Your task to perform on an android device: Go to Yahoo.com Image 0: 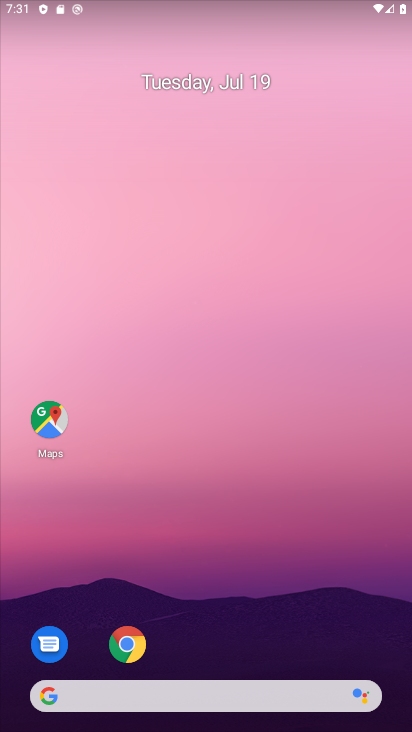
Step 0: drag from (203, 602) to (89, 128)
Your task to perform on an android device: Go to Yahoo.com Image 1: 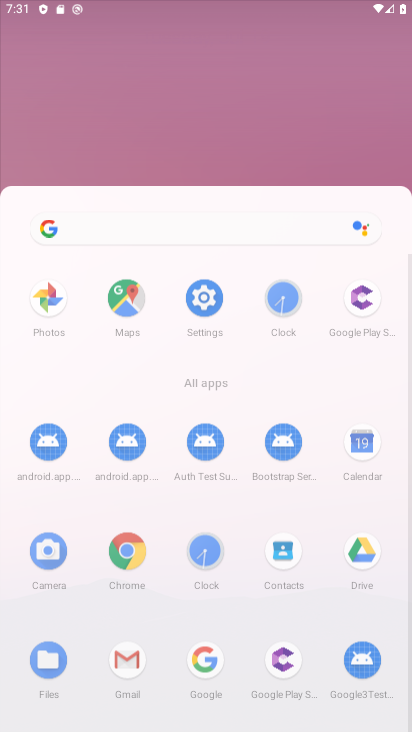
Step 1: drag from (125, 555) to (165, 127)
Your task to perform on an android device: Go to Yahoo.com Image 2: 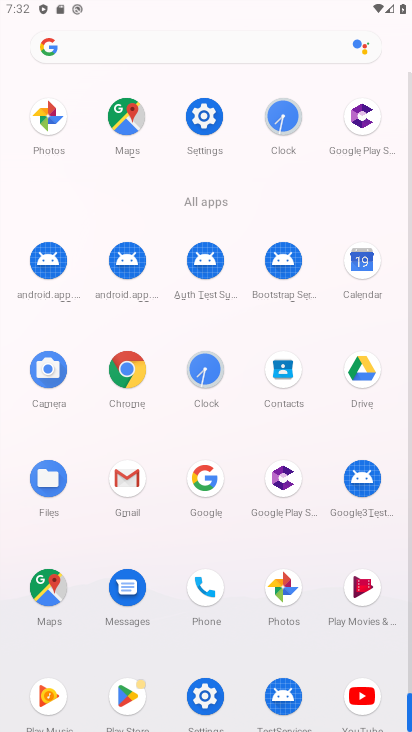
Step 2: click (130, 378)
Your task to perform on an android device: Go to Yahoo.com Image 3: 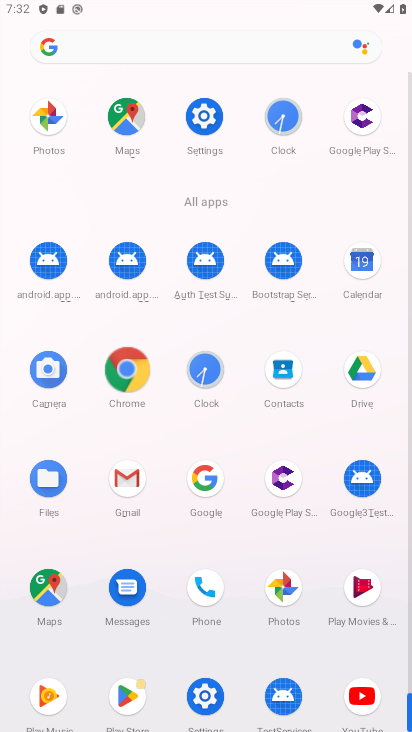
Step 3: click (129, 380)
Your task to perform on an android device: Go to Yahoo.com Image 4: 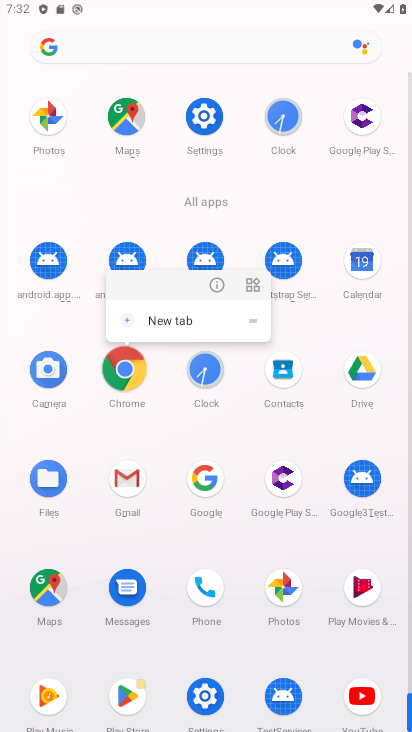
Step 4: click (125, 382)
Your task to perform on an android device: Go to Yahoo.com Image 5: 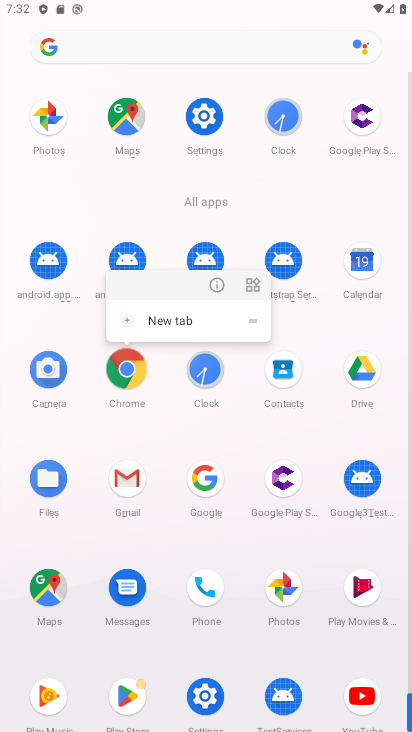
Step 5: click (124, 383)
Your task to perform on an android device: Go to Yahoo.com Image 6: 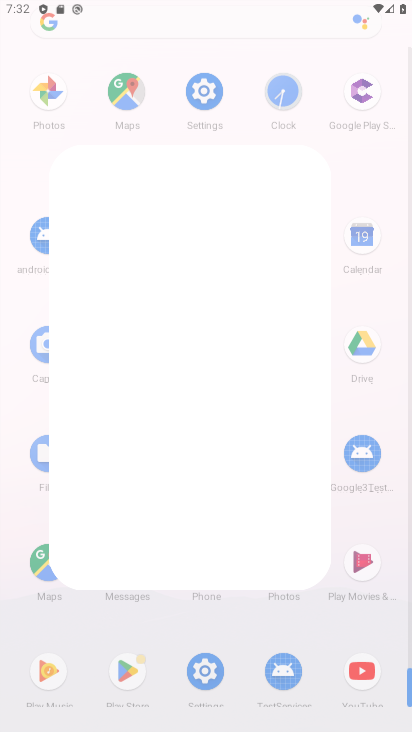
Step 6: click (127, 364)
Your task to perform on an android device: Go to Yahoo.com Image 7: 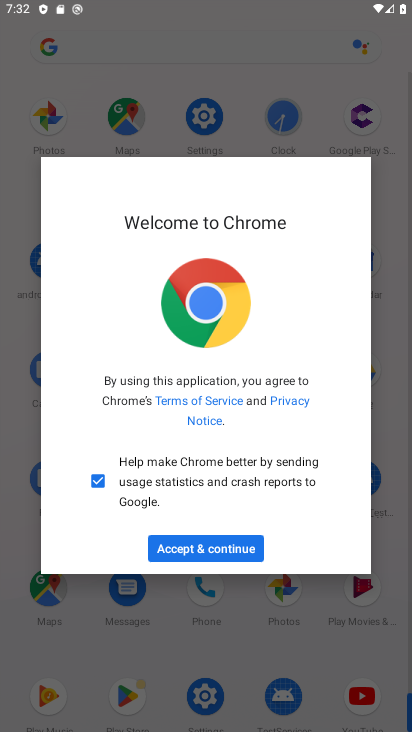
Step 7: click (232, 529)
Your task to perform on an android device: Go to Yahoo.com Image 8: 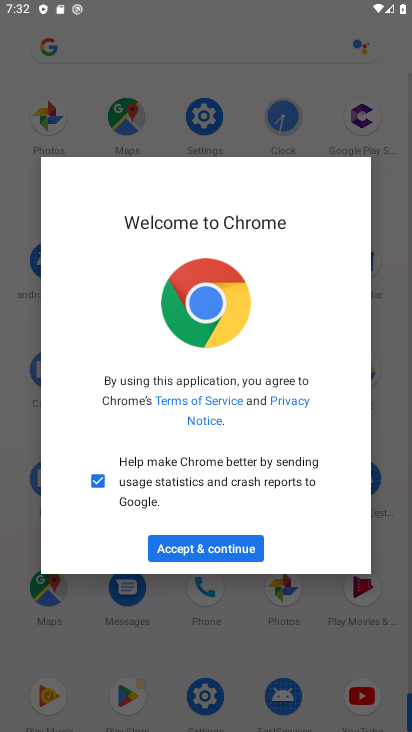
Step 8: click (235, 553)
Your task to perform on an android device: Go to Yahoo.com Image 9: 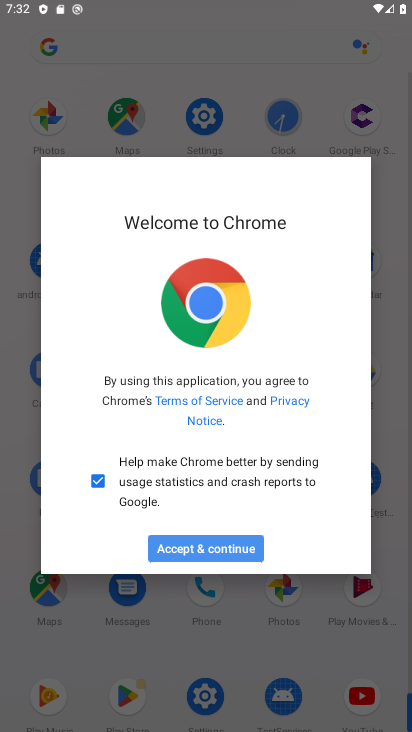
Step 9: click (244, 549)
Your task to perform on an android device: Go to Yahoo.com Image 10: 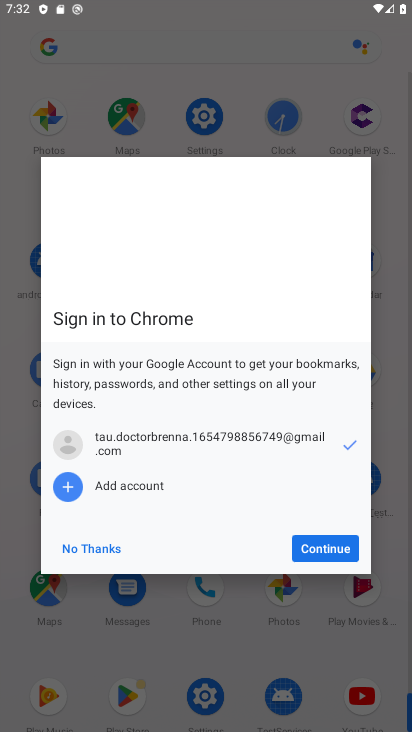
Step 10: click (244, 549)
Your task to perform on an android device: Go to Yahoo.com Image 11: 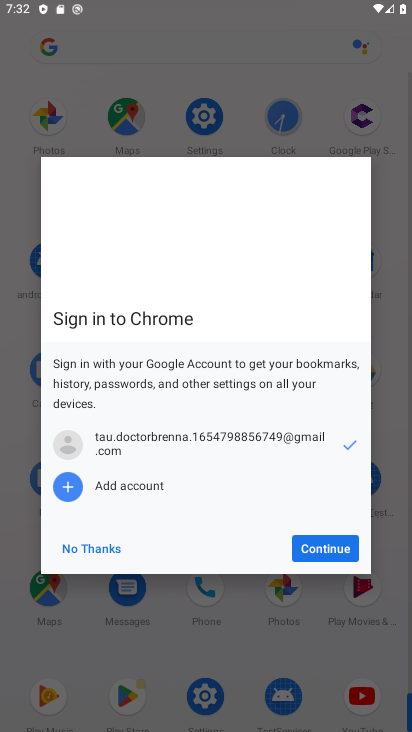
Step 11: click (308, 549)
Your task to perform on an android device: Go to Yahoo.com Image 12: 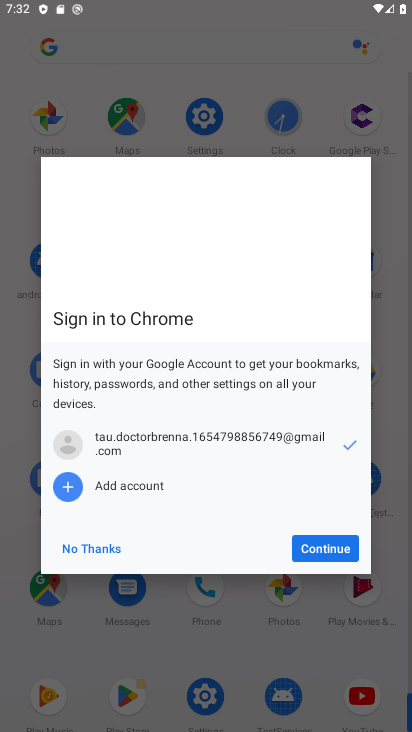
Step 12: click (311, 549)
Your task to perform on an android device: Go to Yahoo.com Image 13: 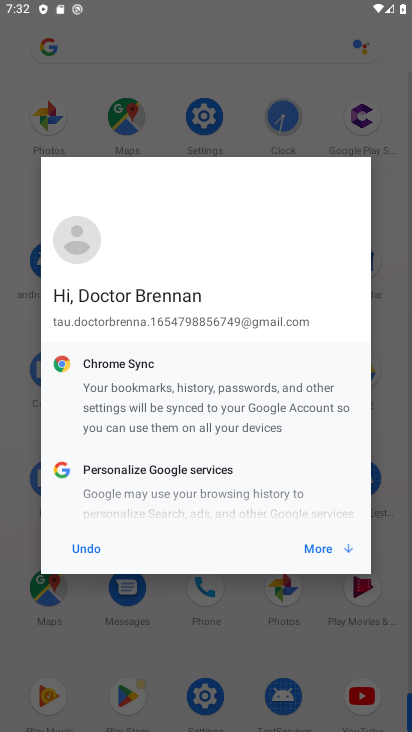
Step 13: click (313, 551)
Your task to perform on an android device: Go to Yahoo.com Image 14: 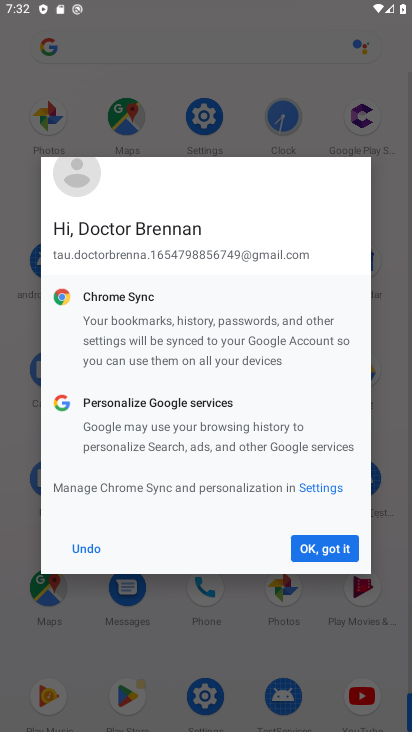
Step 14: click (311, 548)
Your task to perform on an android device: Go to Yahoo.com Image 15: 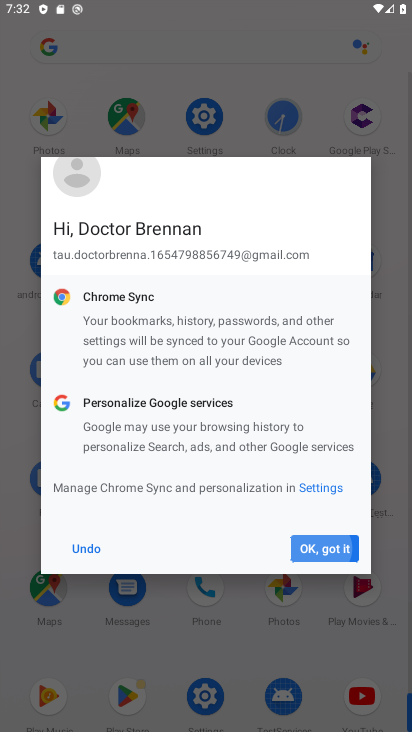
Step 15: click (311, 548)
Your task to perform on an android device: Go to Yahoo.com Image 16: 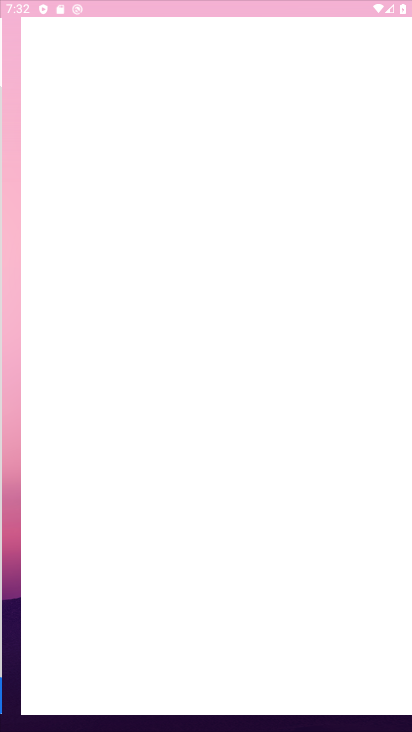
Step 16: click (314, 548)
Your task to perform on an android device: Go to Yahoo.com Image 17: 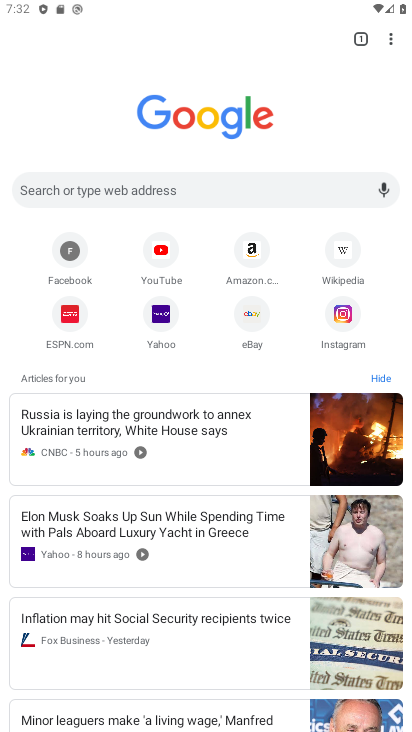
Step 17: click (163, 328)
Your task to perform on an android device: Go to Yahoo.com Image 18: 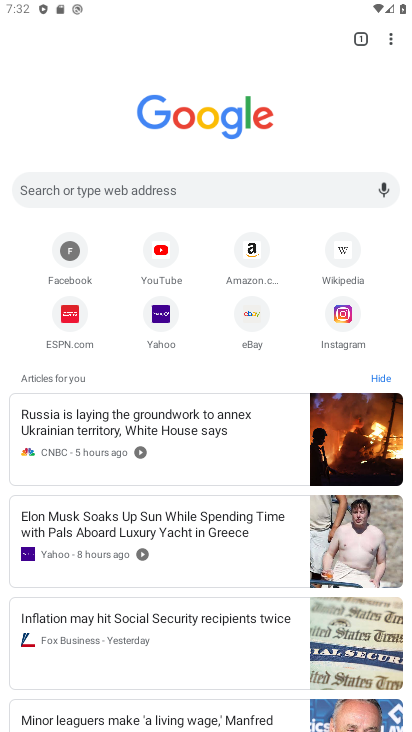
Step 18: click (161, 317)
Your task to perform on an android device: Go to Yahoo.com Image 19: 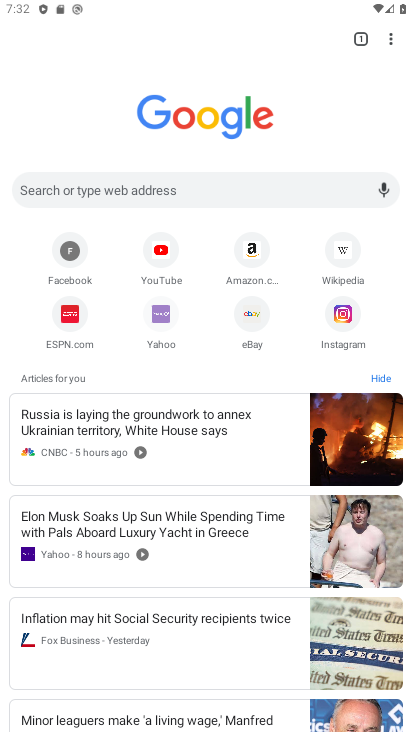
Step 19: click (160, 312)
Your task to perform on an android device: Go to Yahoo.com Image 20: 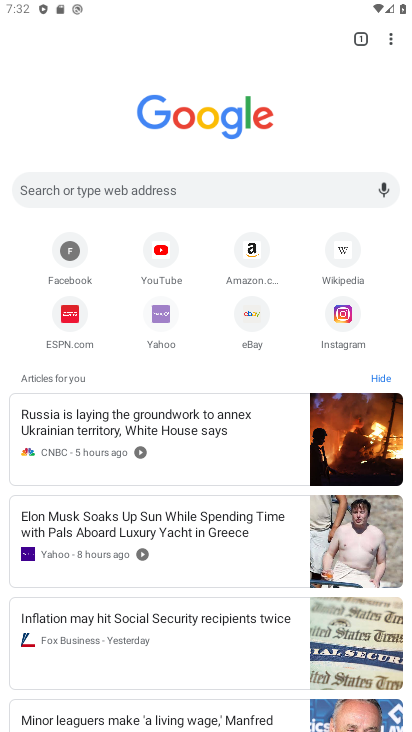
Step 20: click (160, 312)
Your task to perform on an android device: Go to Yahoo.com Image 21: 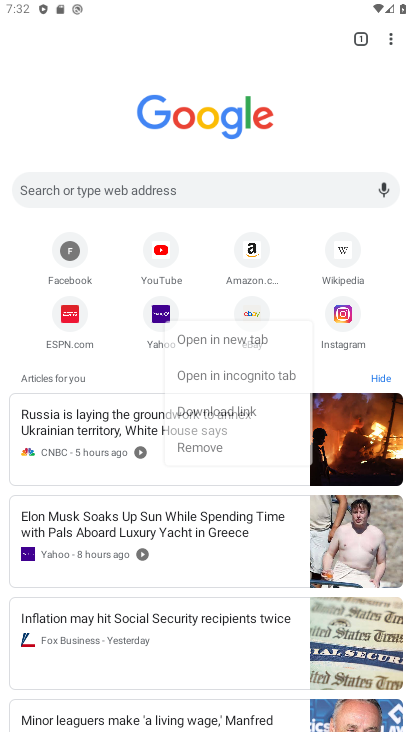
Step 21: click (159, 312)
Your task to perform on an android device: Go to Yahoo.com Image 22: 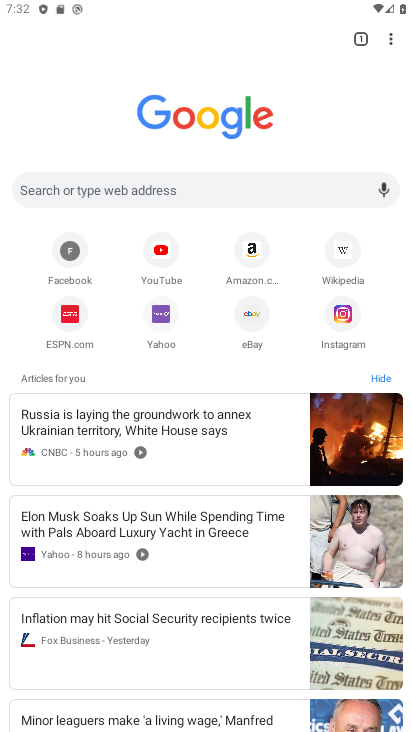
Step 22: click (157, 320)
Your task to perform on an android device: Go to Yahoo.com Image 23: 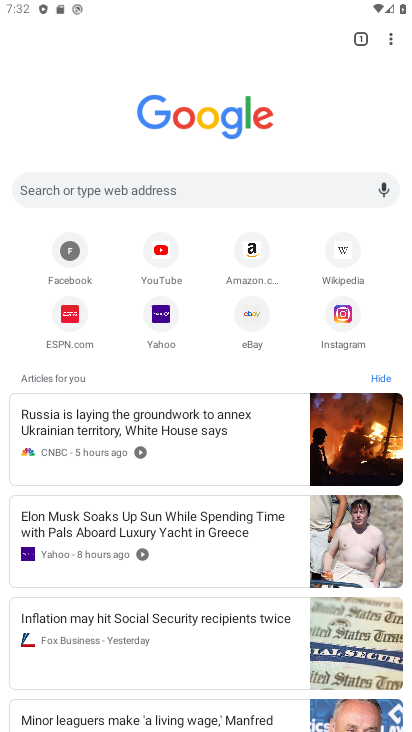
Step 23: click (154, 316)
Your task to perform on an android device: Go to Yahoo.com Image 24: 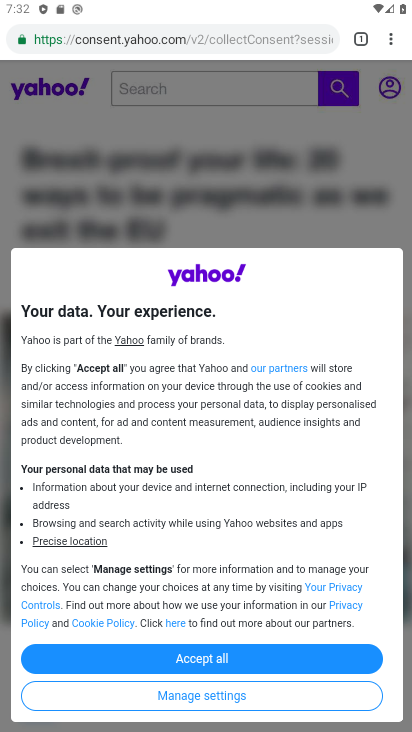
Step 24: task complete